Your task to perform on an android device: Open internet settings Image 0: 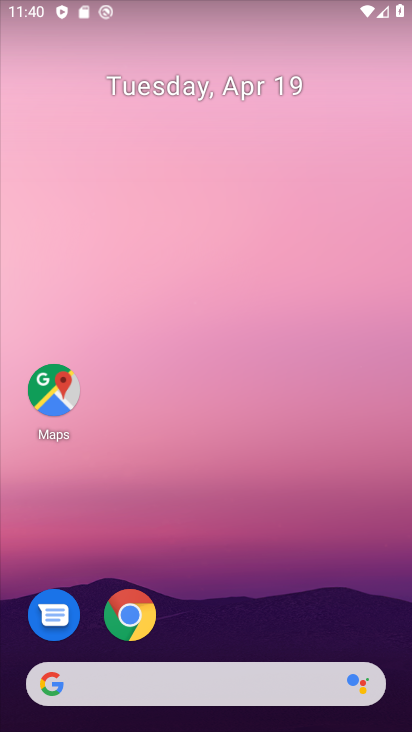
Step 0: click (303, 112)
Your task to perform on an android device: Open internet settings Image 1: 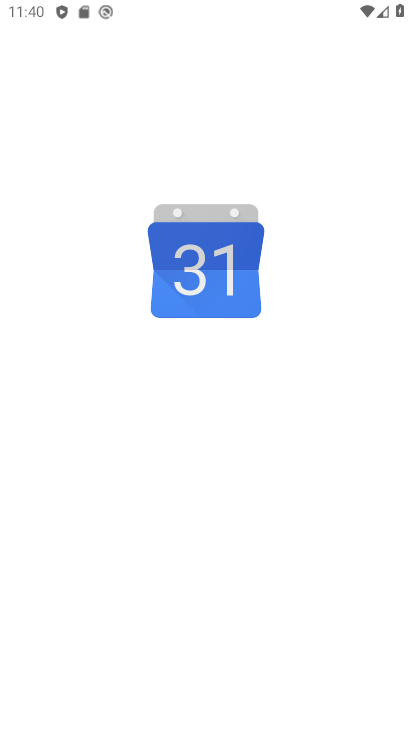
Step 1: click (374, 595)
Your task to perform on an android device: Open internet settings Image 2: 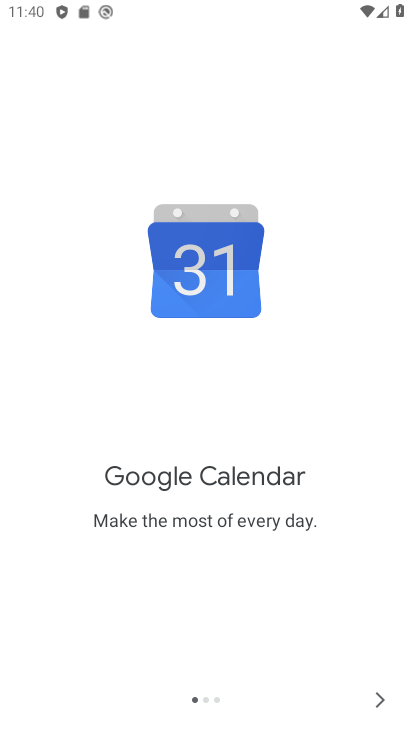
Step 2: press back button
Your task to perform on an android device: Open internet settings Image 3: 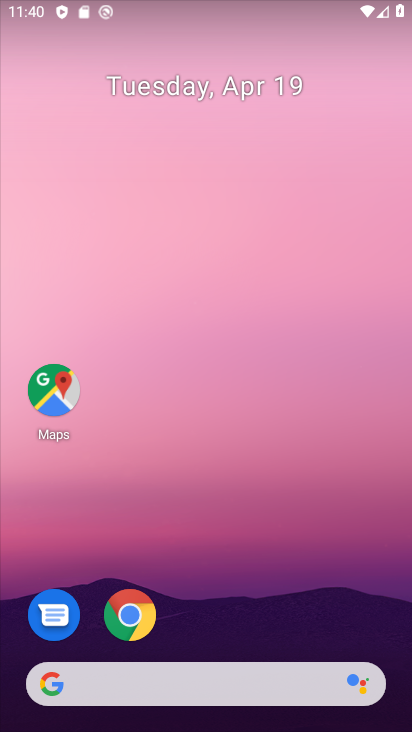
Step 3: drag from (351, 435) to (343, 146)
Your task to perform on an android device: Open internet settings Image 4: 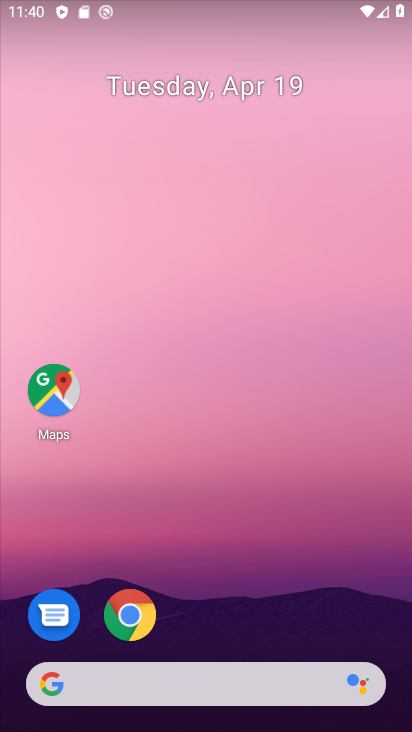
Step 4: drag from (360, 502) to (347, 139)
Your task to perform on an android device: Open internet settings Image 5: 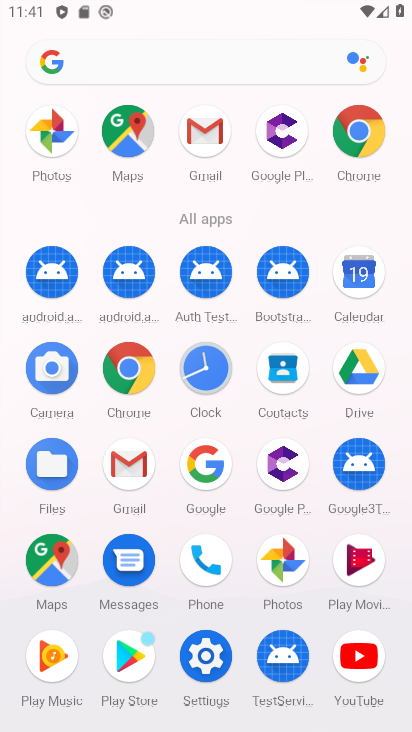
Step 5: click (214, 662)
Your task to perform on an android device: Open internet settings Image 6: 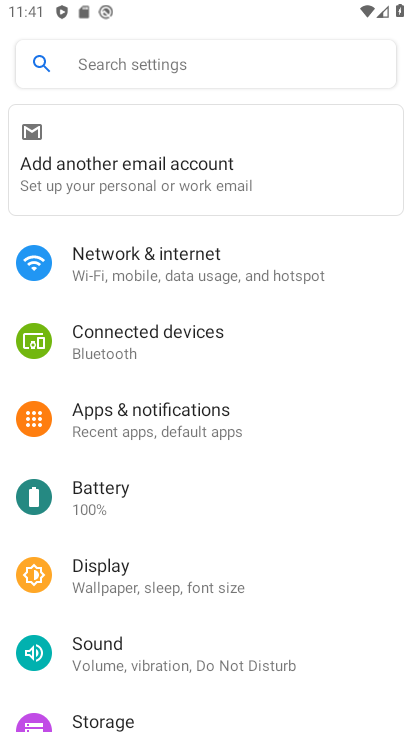
Step 6: click (127, 260)
Your task to perform on an android device: Open internet settings Image 7: 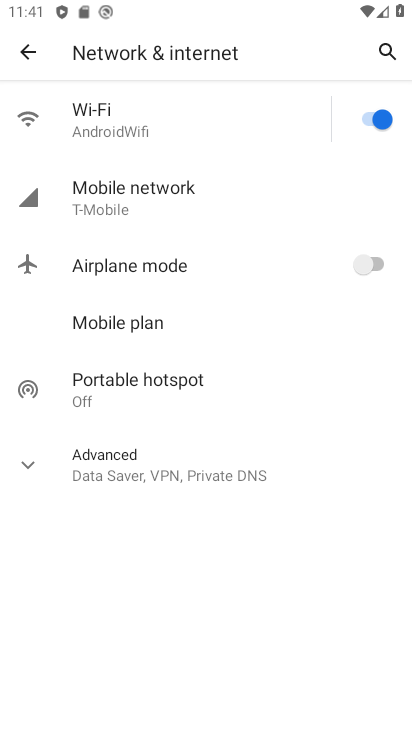
Step 7: click (131, 202)
Your task to perform on an android device: Open internet settings Image 8: 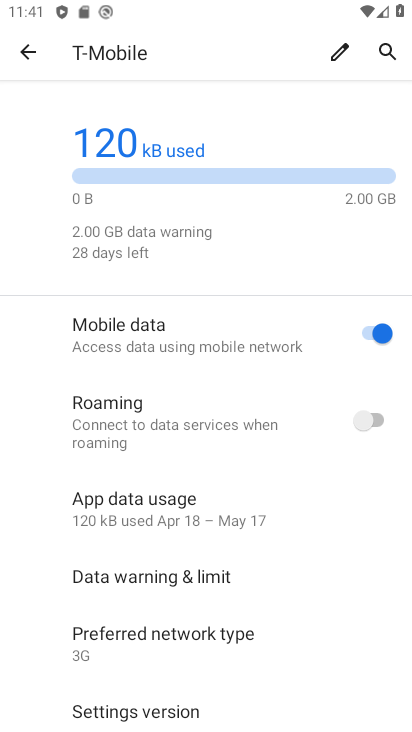
Step 8: task complete